Your task to perform on an android device: Open Chrome and go to settings Image 0: 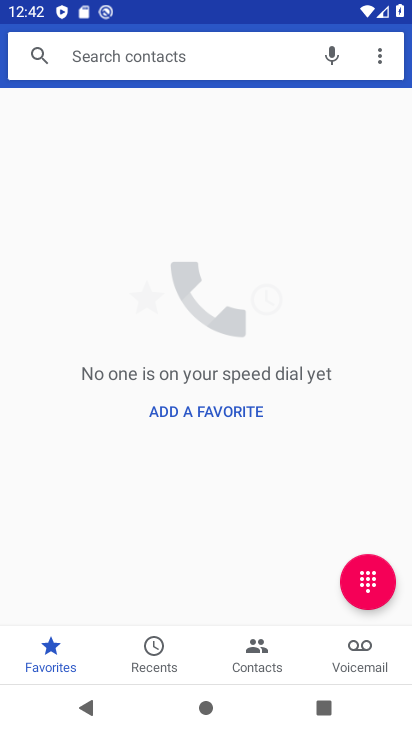
Step 0: drag from (403, 201) to (350, 637)
Your task to perform on an android device: Open Chrome and go to settings Image 1: 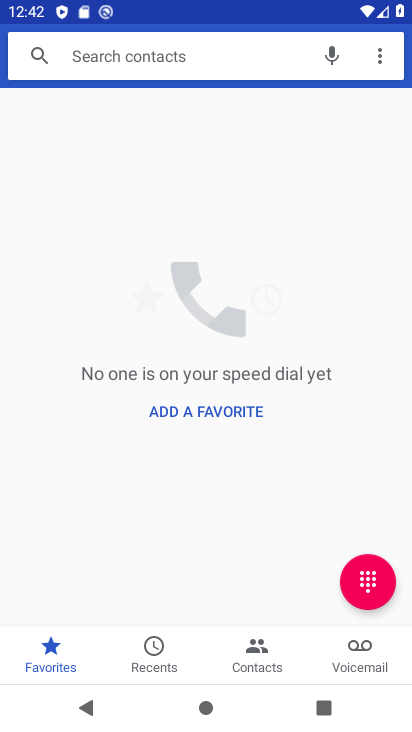
Step 1: press home button
Your task to perform on an android device: Open Chrome and go to settings Image 2: 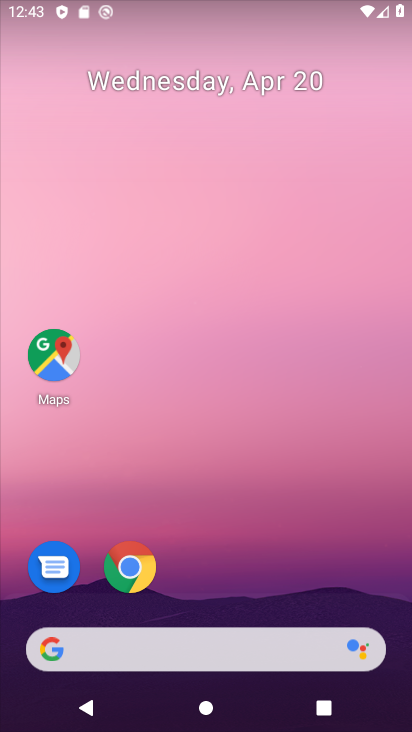
Step 2: click (127, 570)
Your task to perform on an android device: Open Chrome and go to settings Image 3: 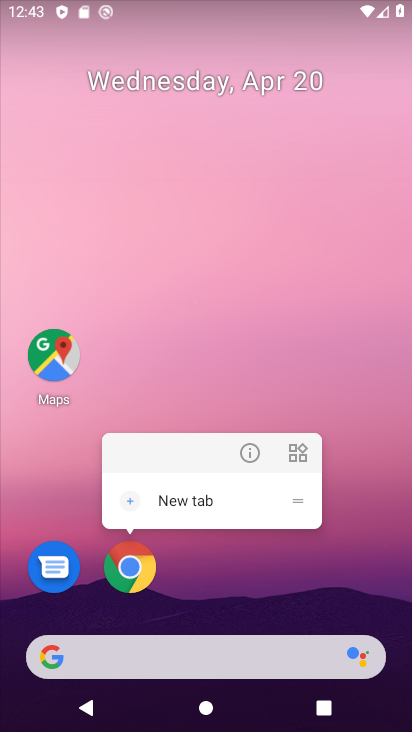
Step 3: click (124, 568)
Your task to perform on an android device: Open Chrome and go to settings Image 4: 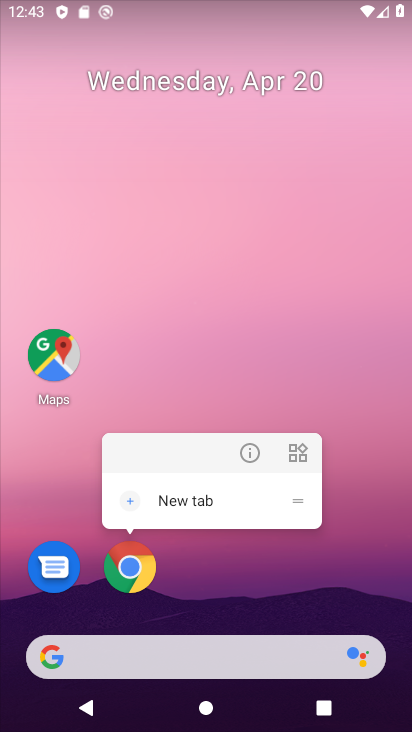
Step 4: click (123, 565)
Your task to perform on an android device: Open Chrome and go to settings Image 5: 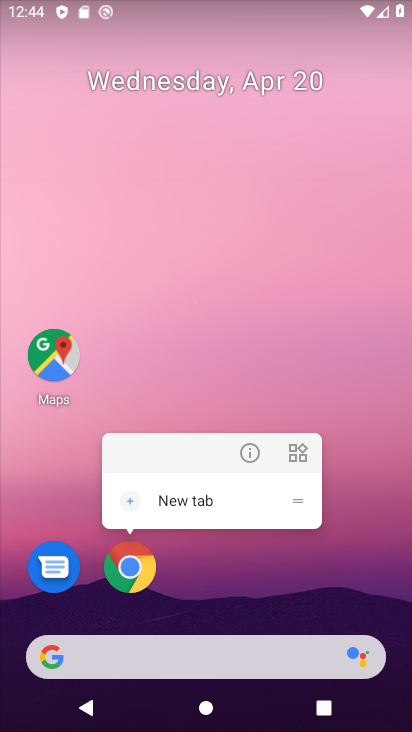
Step 5: click (123, 563)
Your task to perform on an android device: Open Chrome and go to settings Image 6: 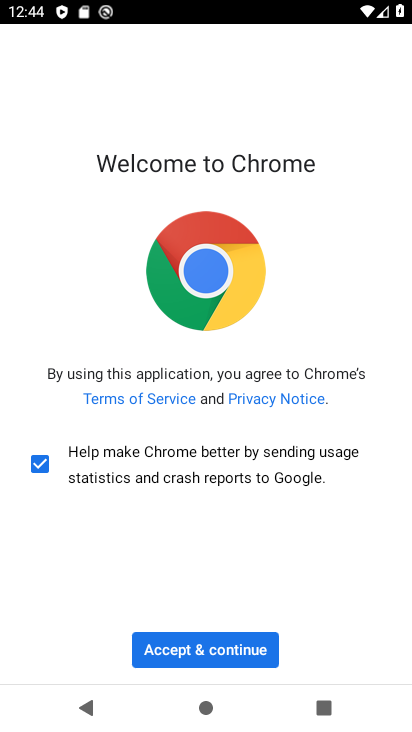
Step 6: click (171, 644)
Your task to perform on an android device: Open Chrome and go to settings Image 7: 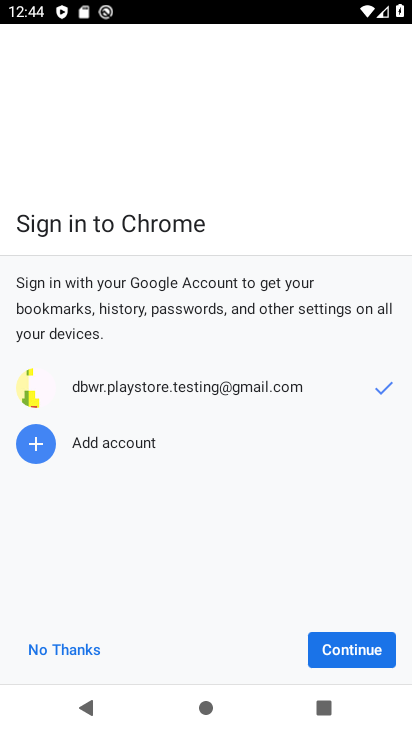
Step 7: drag from (0, 277) to (401, 567)
Your task to perform on an android device: Open Chrome and go to settings Image 8: 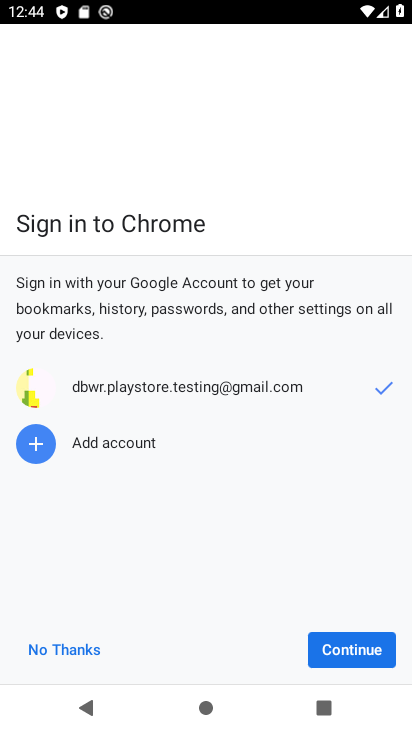
Step 8: click (62, 646)
Your task to perform on an android device: Open Chrome and go to settings Image 9: 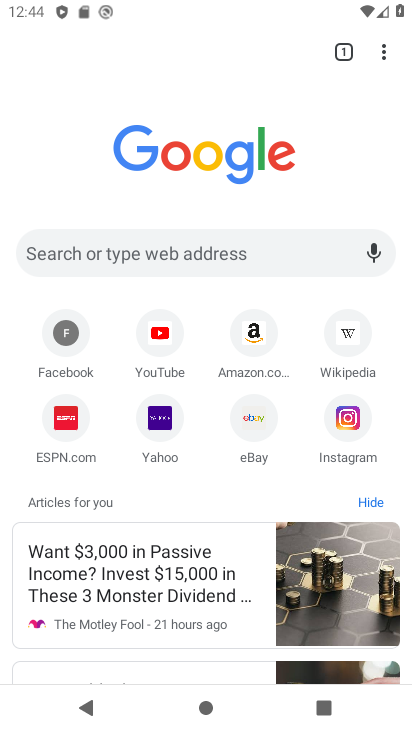
Step 9: click (386, 48)
Your task to perform on an android device: Open Chrome and go to settings Image 10: 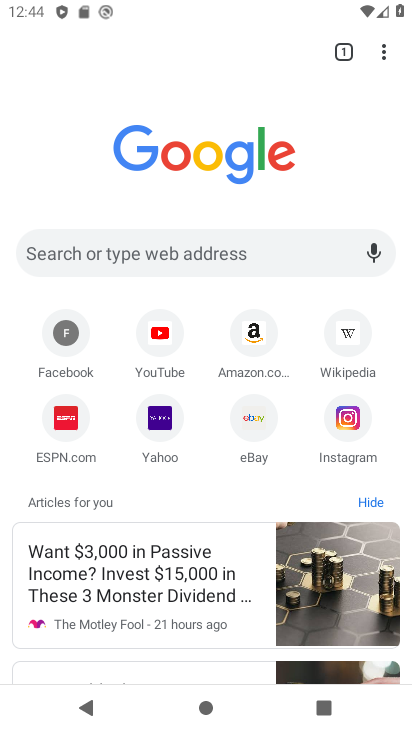
Step 10: click (383, 50)
Your task to perform on an android device: Open Chrome and go to settings Image 11: 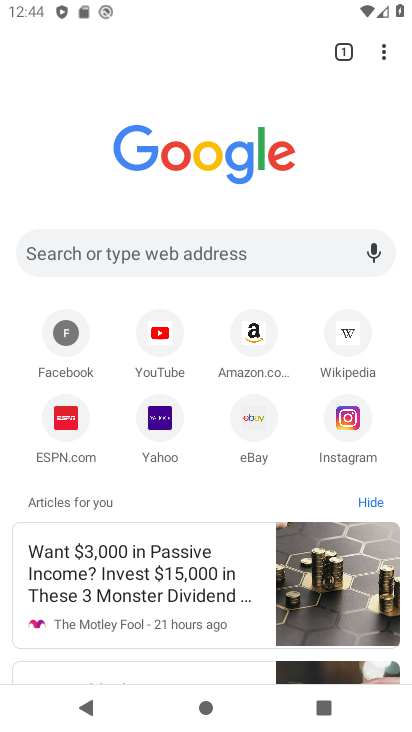
Step 11: click (383, 50)
Your task to perform on an android device: Open Chrome and go to settings Image 12: 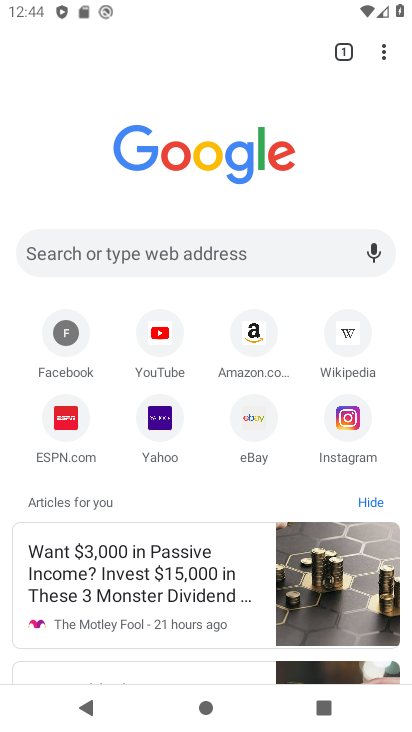
Step 12: click (383, 50)
Your task to perform on an android device: Open Chrome and go to settings Image 13: 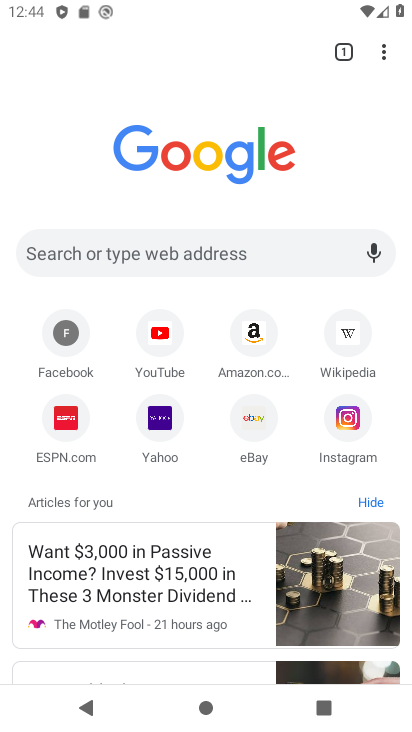
Step 13: click (383, 50)
Your task to perform on an android device: Open Chrome and go to settings Image 14: 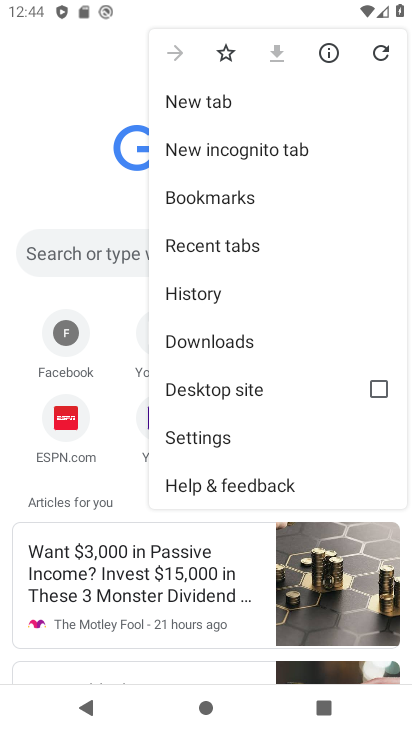
Step 14: click (172, 452)
Your task to perform on an android device: Open Chrome and go to settings Image 15: 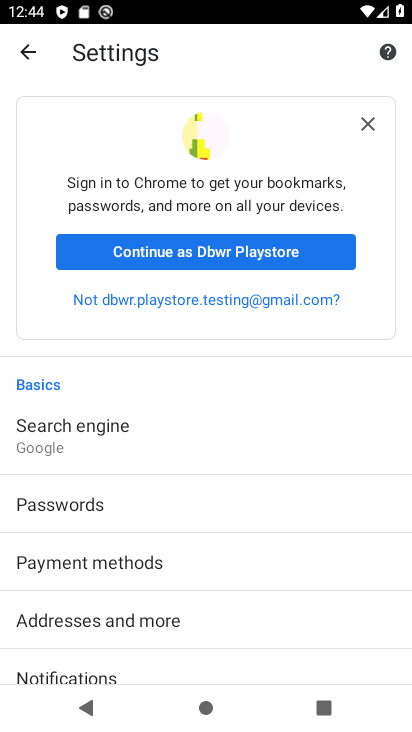
Step 15: task complete